Your task to perform on an android device: set an alarm Image 0: 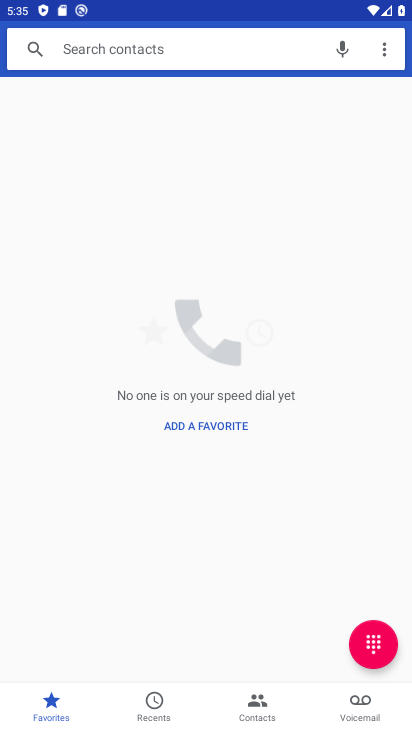
Step 0: press home button
Your task to perform on an android device: set an alarm Image 1: 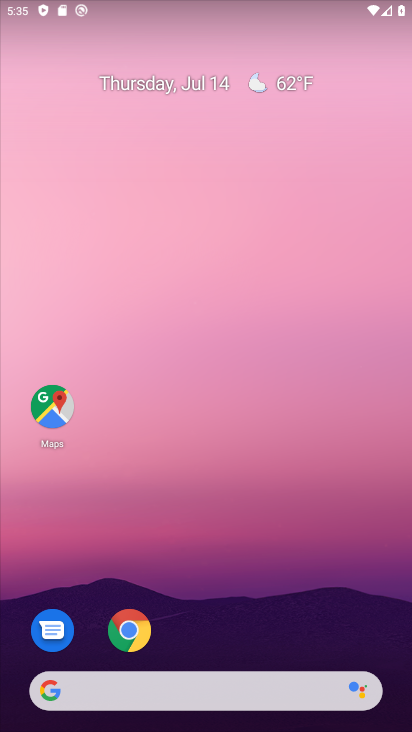
Step 1: drag from (275, 649) to (360, 37)
Your task to perform on an android device: set an alarm Image 2: 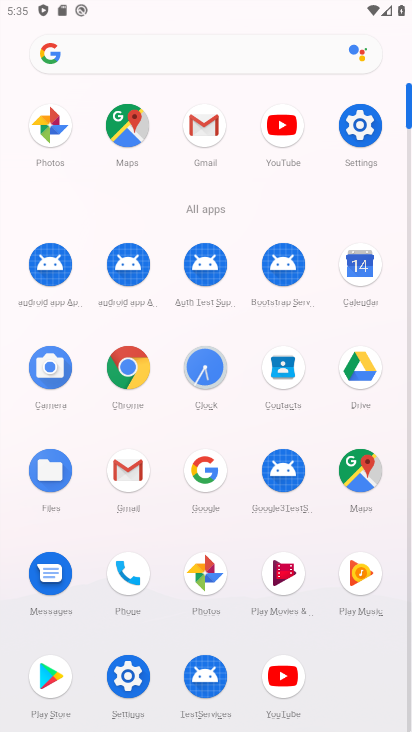
Step 2: click (216, 370)
Your task to perform on an android device: set an alarm Image 3: 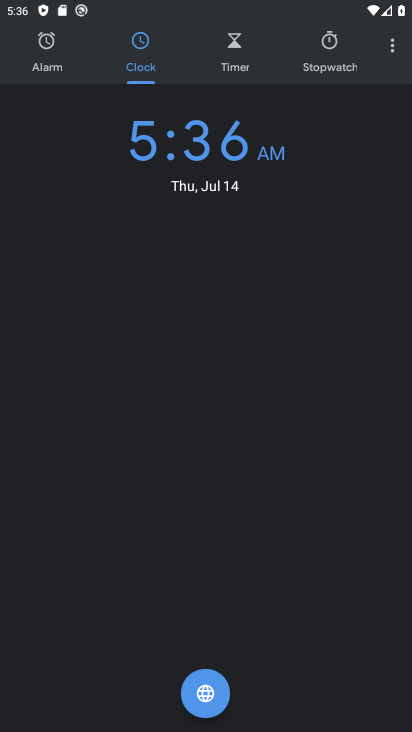
Step 3: click (56, 62)
Your task to perform on an android device: set an alarm Image 4: 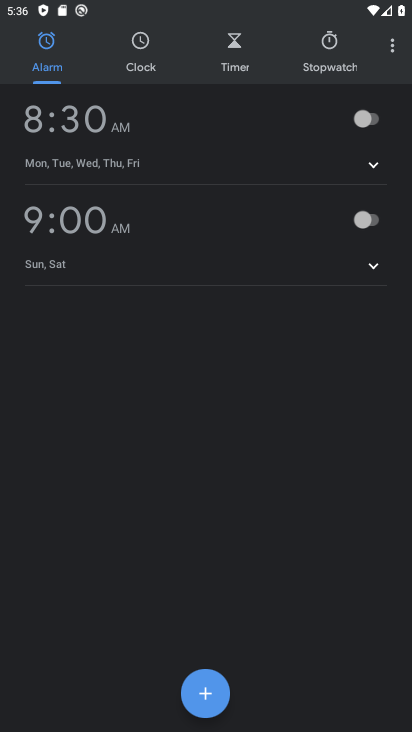
Step 4: click (379, 131)
Your task to perform on an android device: set an alarm Image 5: 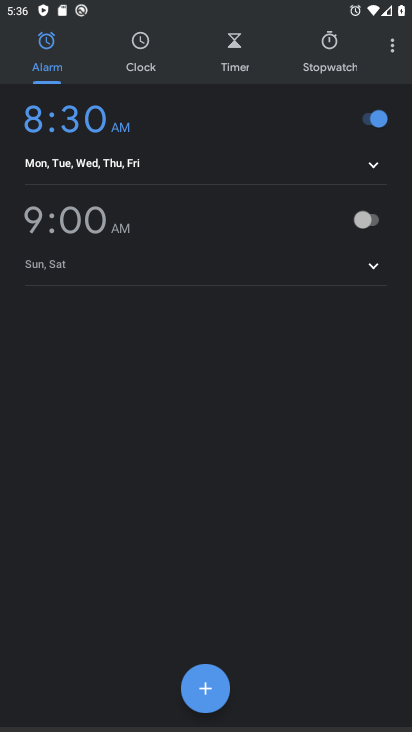
Step 5: task complete